Your task to perform on an android device: turn on the 24-hour format for clock Image 0: 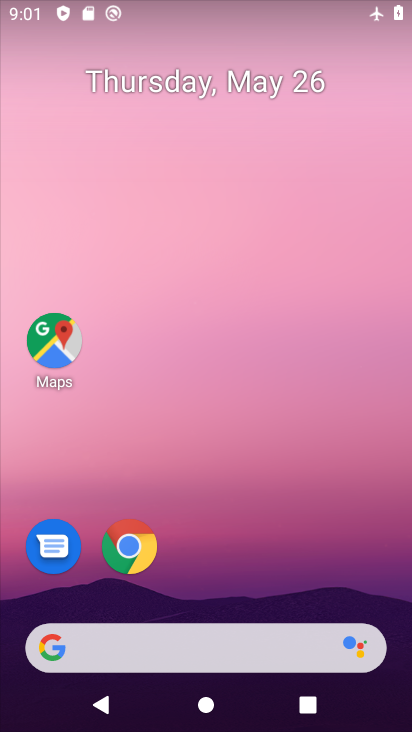
Step 0: drag from (242, 550) to (211, 61)
Your task to perform on an android device: turn on the 24-hour format for clock Image 1: 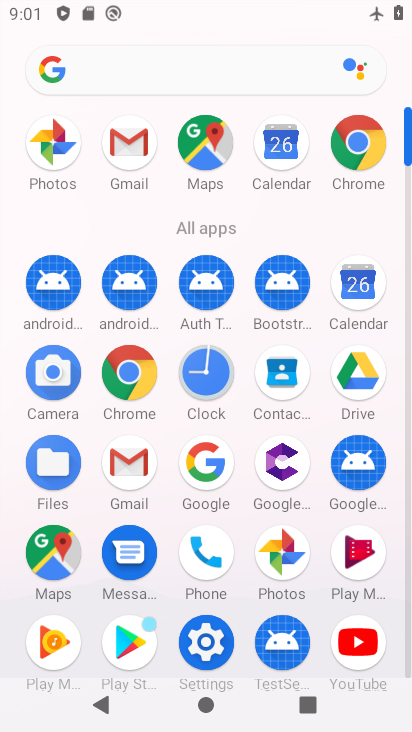
Step 1: click (202, 368)
Your task to perform on an android device: turn on the 24-hour format for clock Image 2: 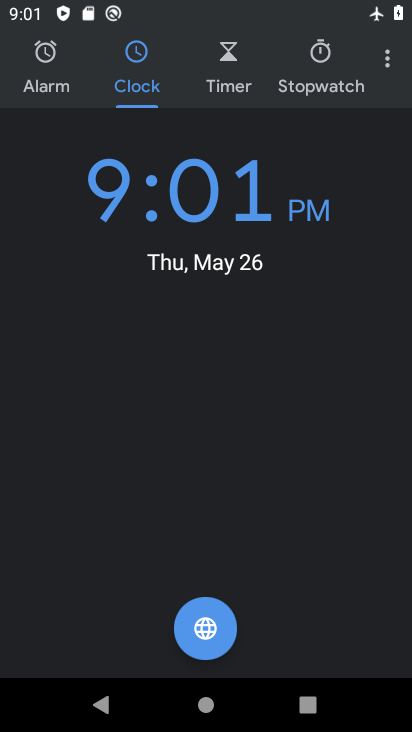
Step 2: click (385, 54)
Your task to perform on an android device: turn on the 24-hour format for clock Image 3: 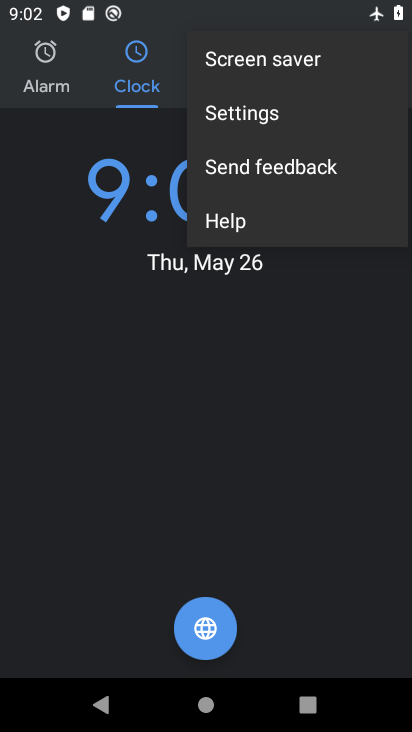
Step 3: click (327, 101)
Your task to perform on an android device: turn on the 24-hour format for clock Image 4: 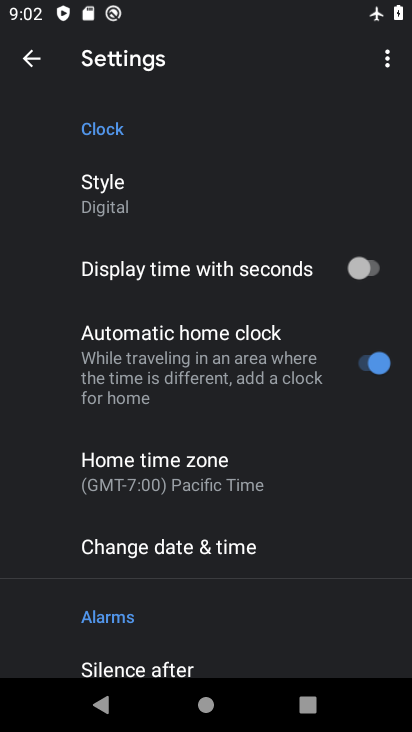
Step 4: click (255, 572)
Your task to perform on an android device: turn on the 24-hour format for clock Image 5: 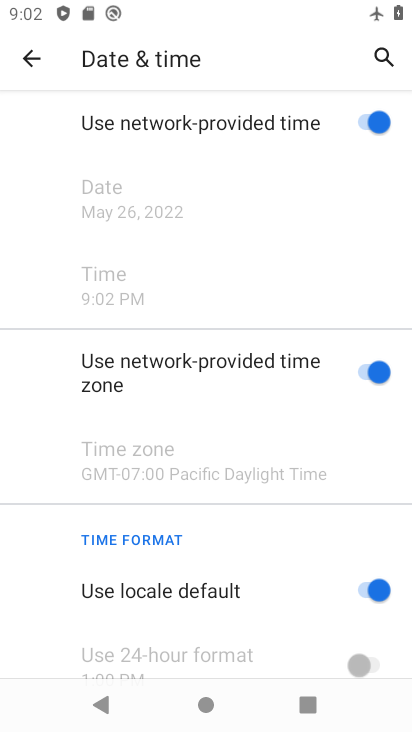
Step 5: drag from (260, 595) to (246, 459)
Your task to perform on an android device: turn on the 24-hour format for clock Image 6: 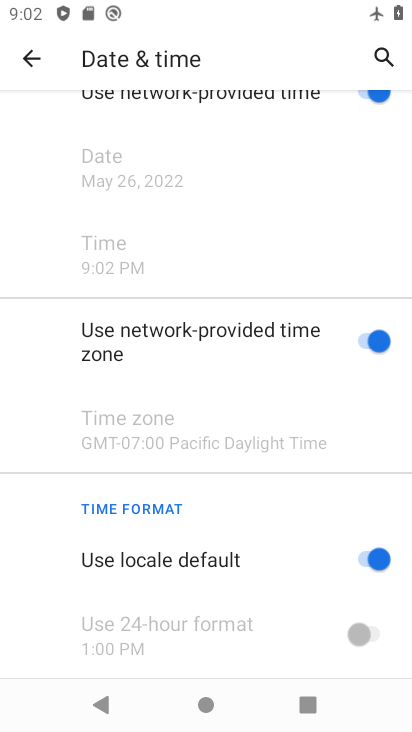
Step 6: click (373, 563)
Your task to perform on an android device: turn on the 24-hour format for clock Image 7: 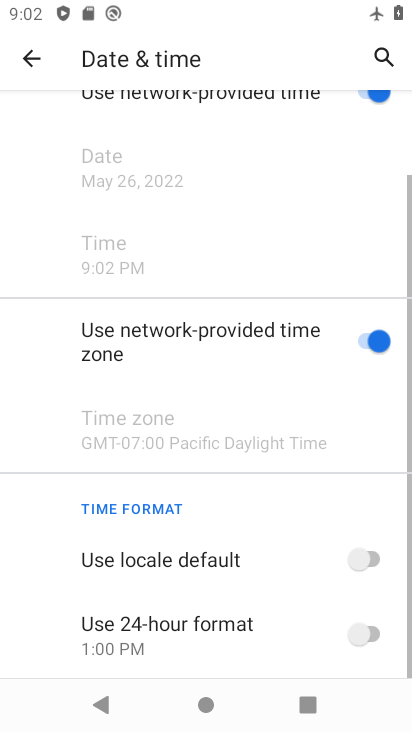
Step 7: click (371, 636)
Your task to perform on an android device: turn on the 24-hour format for clock Image 8: 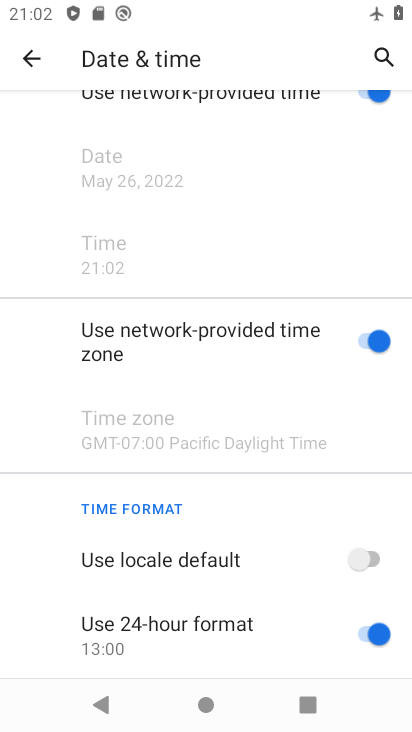
Step 8: task complete